Your task to perform on an android device: Open the Play Movies app and select the watchlist tab. Image 0: 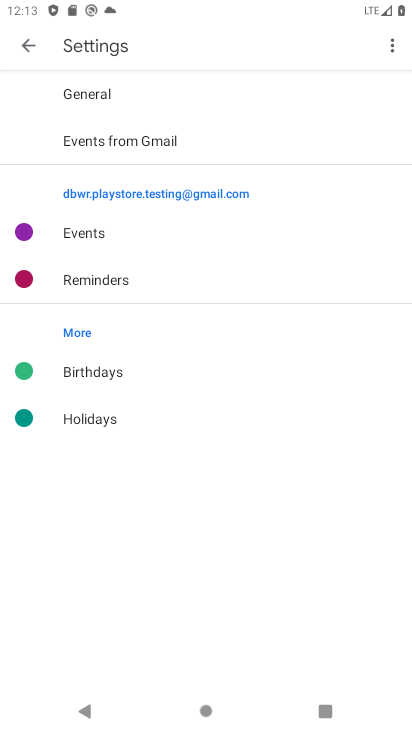
Step 0: press home button
Your task to perform on an android device: Open the Play Movies app and select the watchlist tab. Image 1: 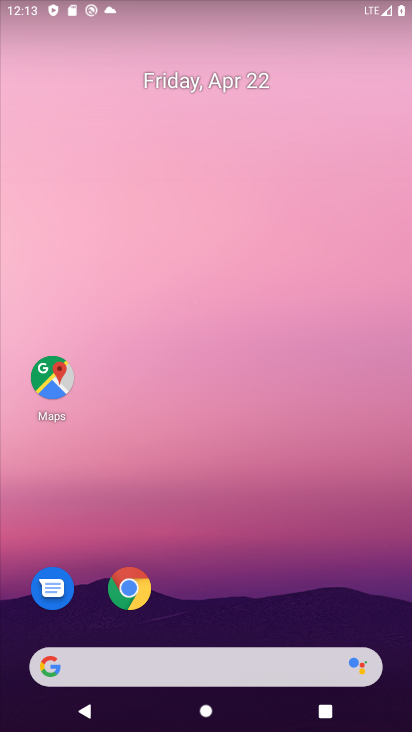
Step 1: drag from (219, 668) to (336, 154)
Your task to perform on an android device: Open the Play Movies app and select the watchlist tab. Image 2: 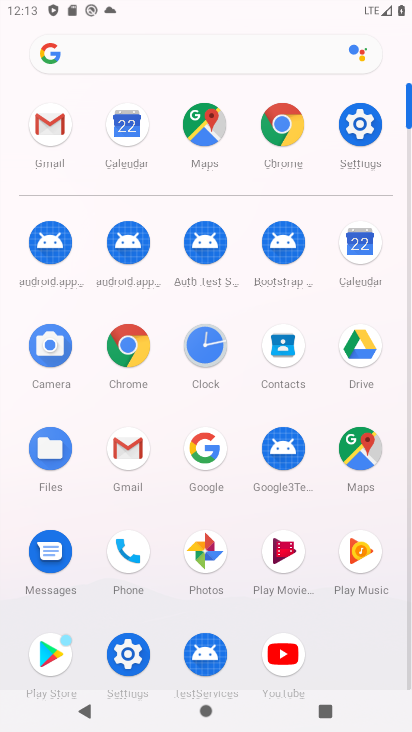
Step 2: click (282, 531)
Your task to perform on an android device: Open the Play Movies app and select the watchlist tab. Image 3: 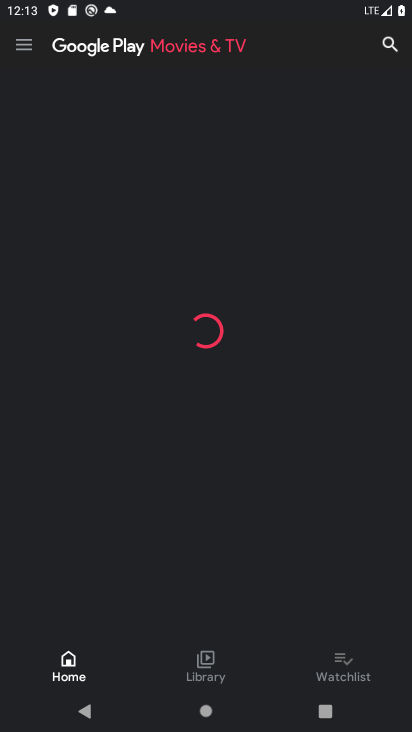
Step 3: click (333, 653)
Your task to perform on an android device: Open the Play Movies app and select the watchlist tab. Image 4: 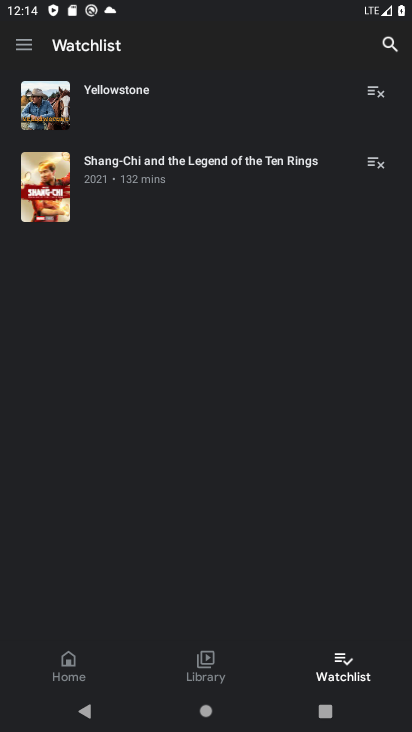
Step 4: task complete